Your task to perform on an android device: Go to display settings Image 0: 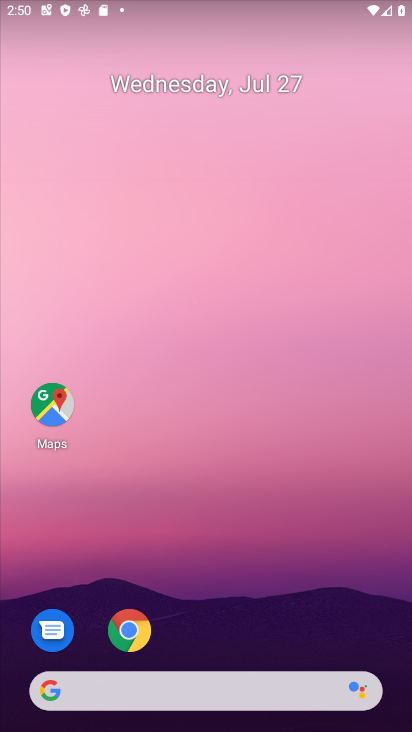
Step 0: drag from (380, 576) to (294, 211)
Your task to perform on an android device: Go to display settings Image 1: 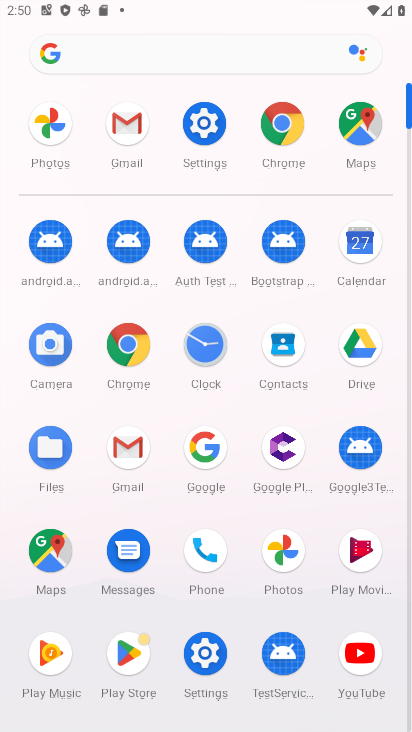
Step 1: click (192, 131)
Your task to perform on an android device: Go to display settings Image 2: 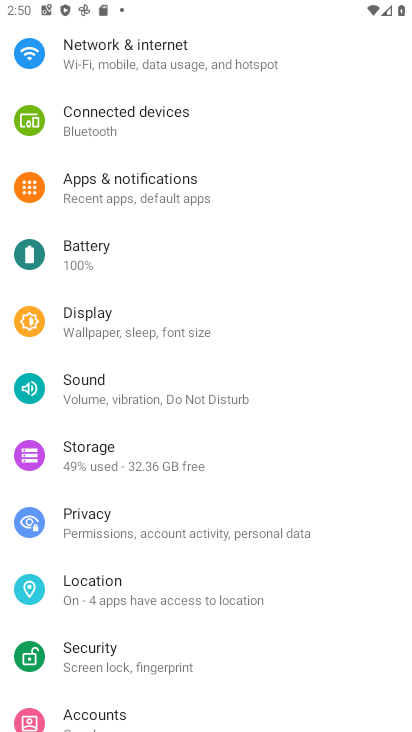
Step 2: click (104, 338)
Your task to perform on an android device: Go to display settings Image 3: 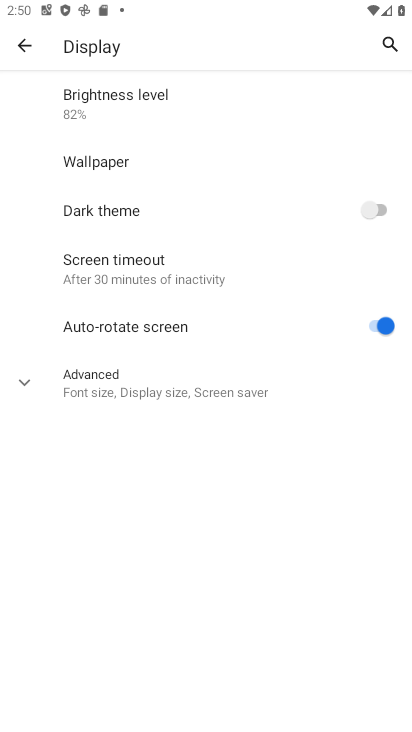
Step 3: click (29, 370)
Your task to perform on an android device: Go to display settings Image 4: 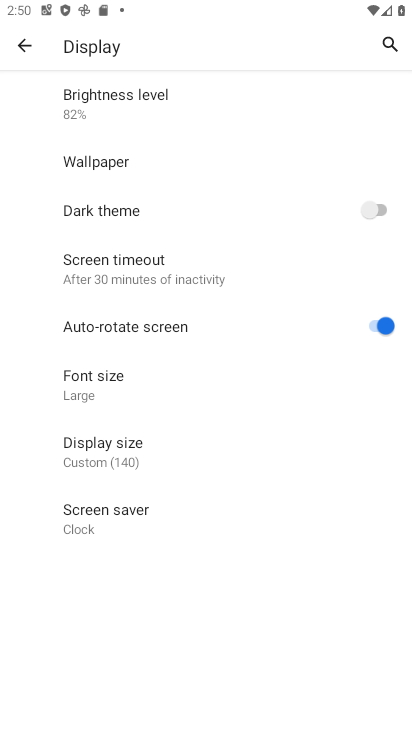
Step 4: task complete